Your task to perform on an android device: turn on translation in the chrome app Image 0: 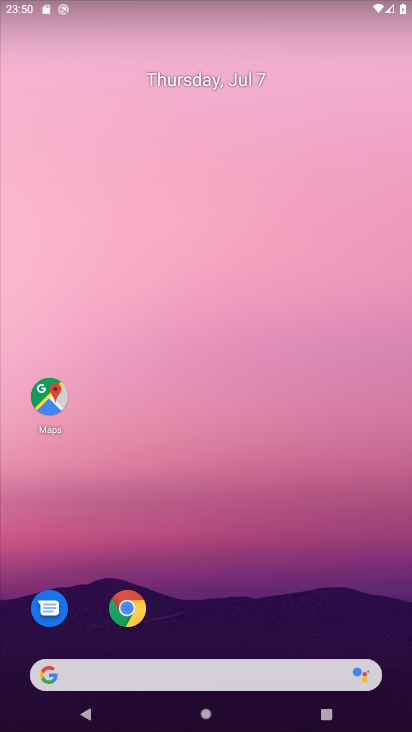
Step 0: drag from (153, 636) to (120, 353)
Your task to perform on an android device: turn on translation in the chrome app Image 1: 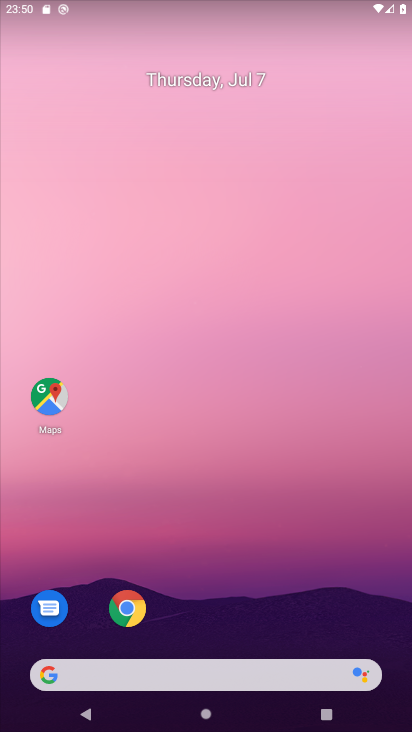
Step 1: drag from (182, 681) to (306, 163)
Your task to perform on an android device: turn on translation in the chrome app Image 2: 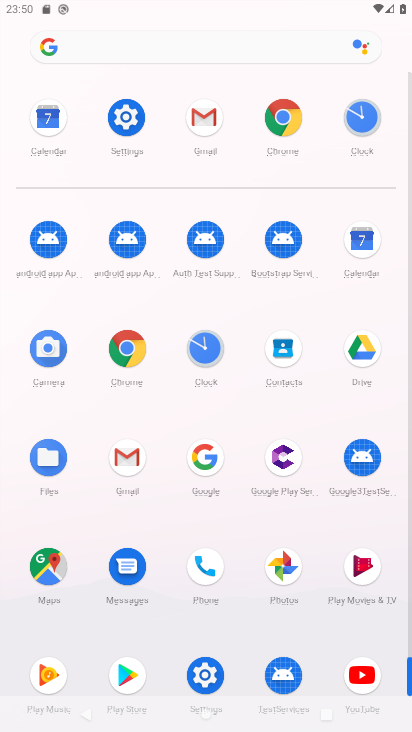
Step 2: click (142, 343)
Your task to perform on an android device: turn on translation in the chrome app Image 3: 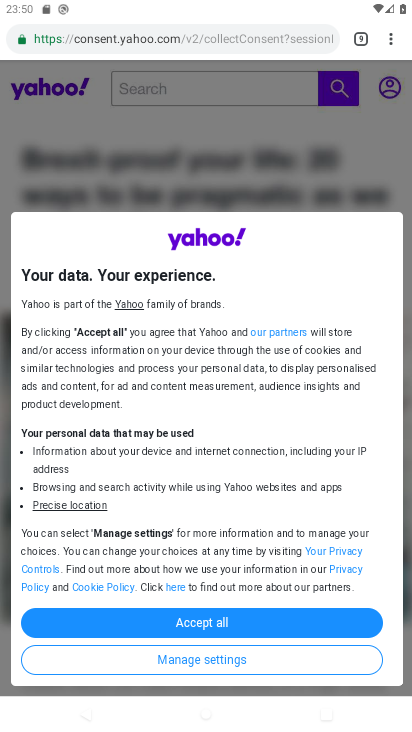
Step 3: click (395, 39)
Your task to perform on an android device: turn on translation in the chrome app Image 4: 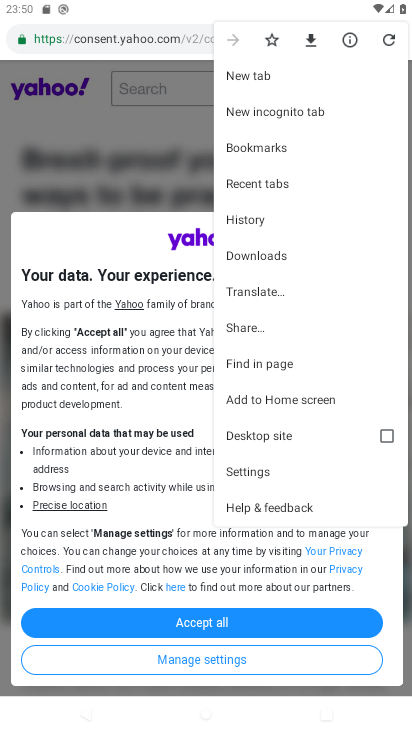
Step 4: click (301, 472)
Your task to perform on an android device: turn on translation in the chrome app Image 5: 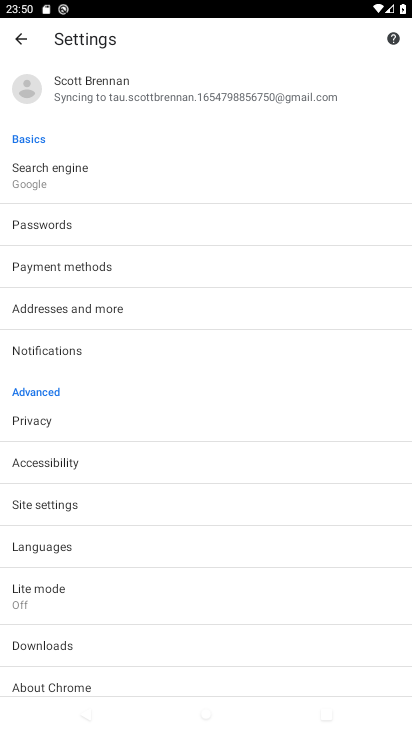
Step 5: click (89, 551)
Your task to perform on an android device: turn on translation in the chrome app Image 6: 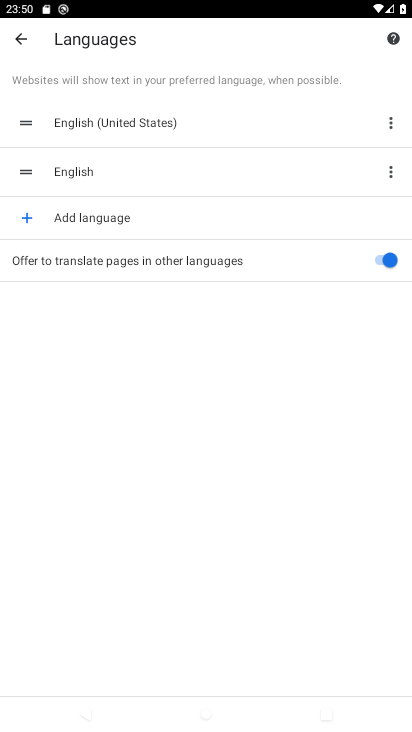
Step 6: task complete